Your task to perform on an android device: delete location history Image 0: 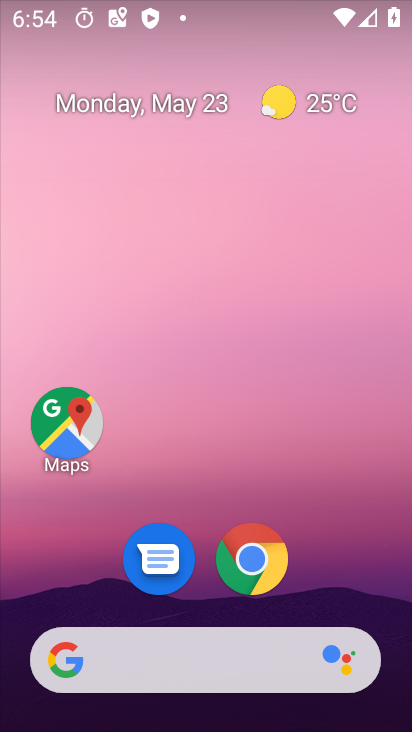
Step 0: drag from (398, 646) to (337, 12)
Your task to perform on an android device: delete location history Image 1: 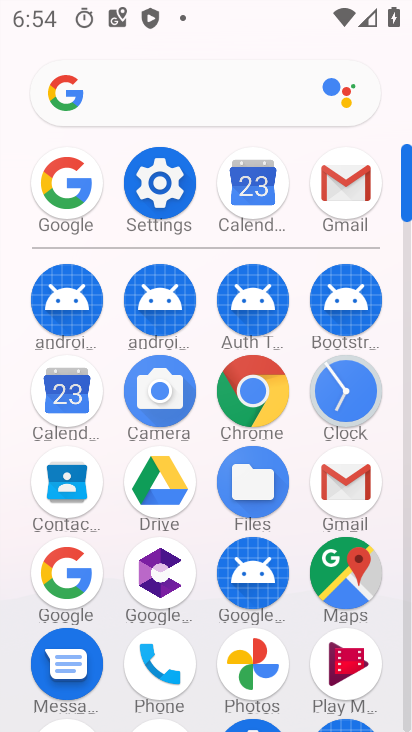
Step 1: click (158, 198)
Your task to perform on an android device: delete location history Image 2: 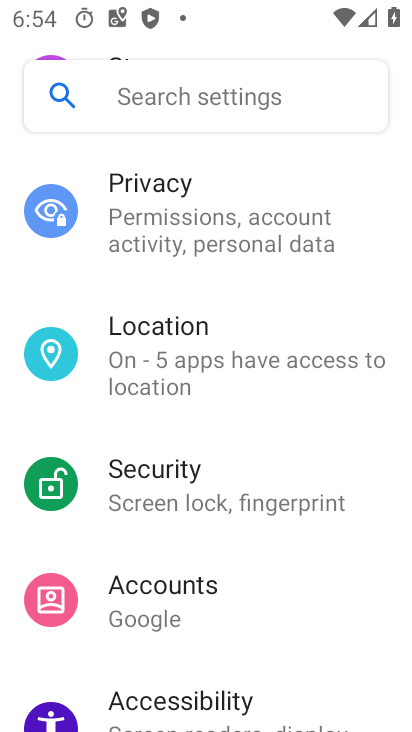
Step 2: click (152, 351)
Your task to perform on an android device: delete location history Image 3: 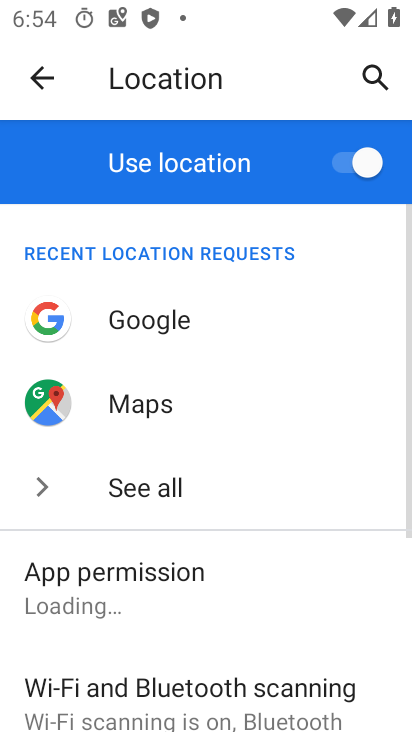
Step 3: drag from (128, 690) to (212, 206)
Your task to perform on an android device: delete location history Image 4: 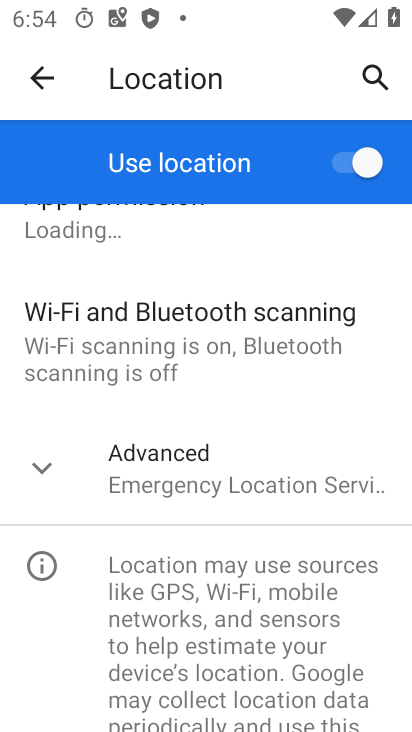
Step 4: click (74, 460)
Your task to perform on an android device: delete location history Image 5: 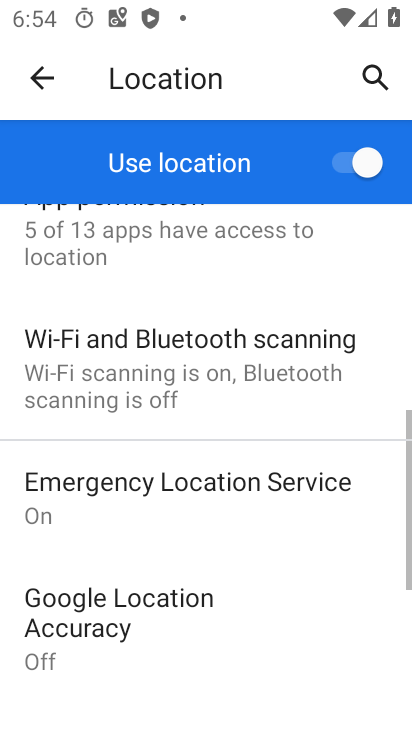
Step 5: drag from (76, 635) to (159, 259)
Your task to perform on an android device: delete location history Image 6: 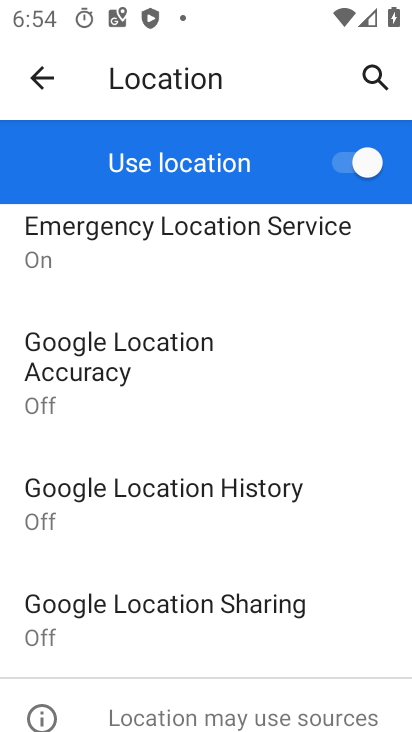
Step 6: click (186, 522)
Your task to perform on an android device: delete location history Image 7: 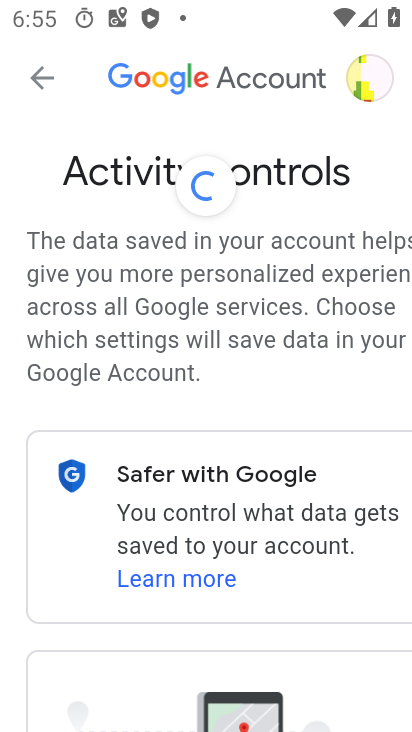
Step 7: drag from (242, 646) to (226, 80)
Your task to perform on an android device: delete location history Image 8: 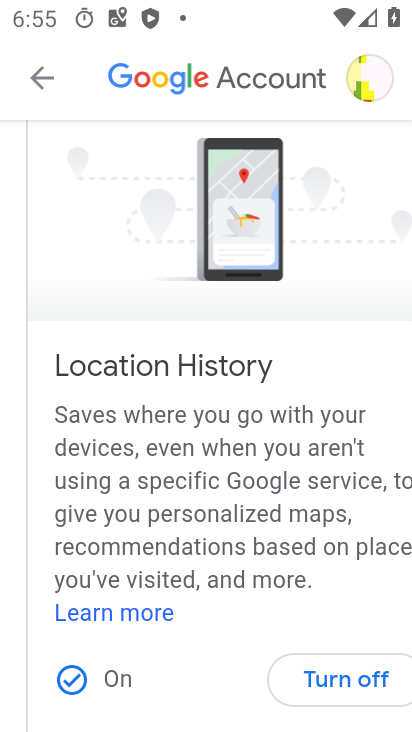
Step 8: drag from (275, 592) to (218, 244)
Your task to perform on an android device: delete location history Image 9: 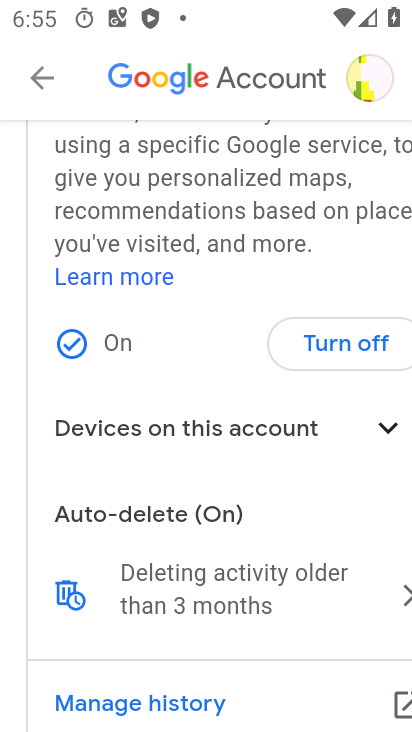
Step 9: click (229, 604)
Your task to perform on an android device: delete location history Image 10: 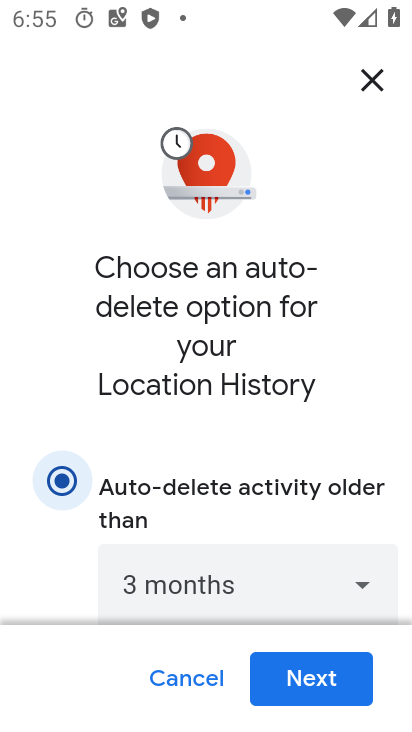
Step 10: click (294, 668)
Your task to perform on an android device: delete location history Image 11: 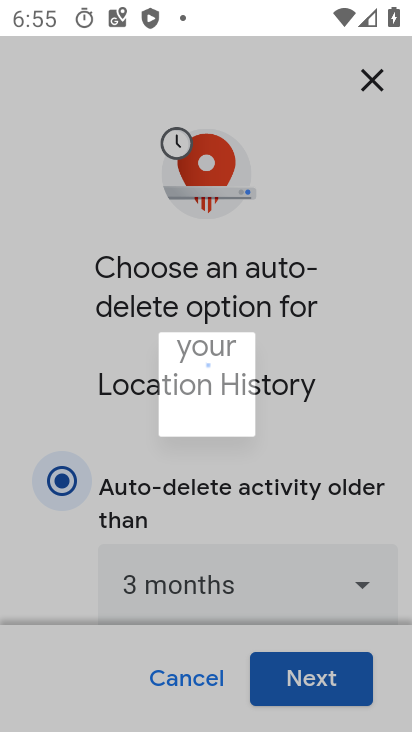
Step 11: click (323, 684)
Your task to perform on an android device: delete location history Image 12: 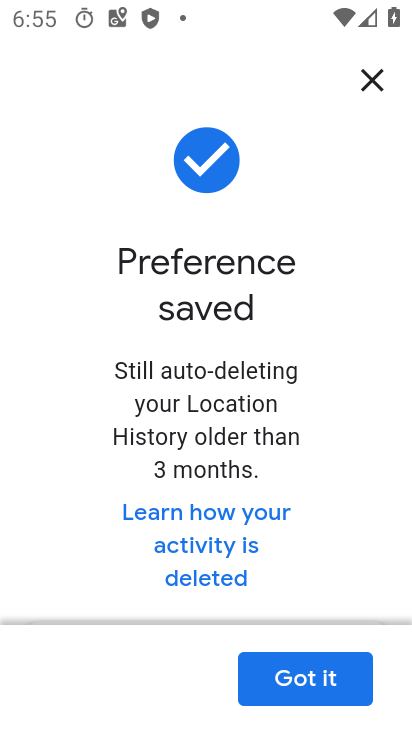
Step 12: click (309, 687)
Your task to perform on an android device: delete location history Image 13: 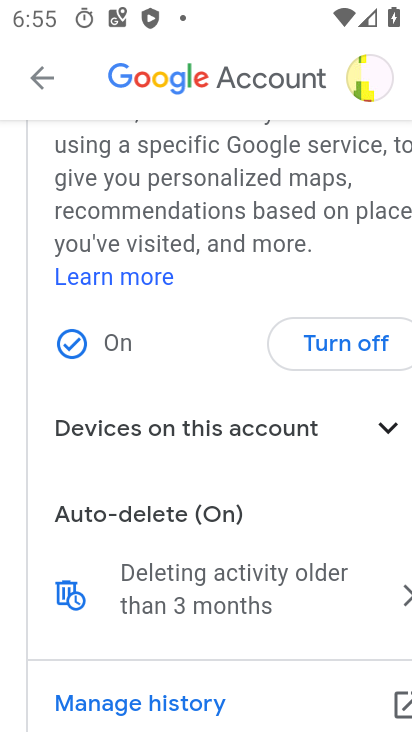
Step 13: task complete